Your task to perform on an android device: turn notification dots off Image 0: 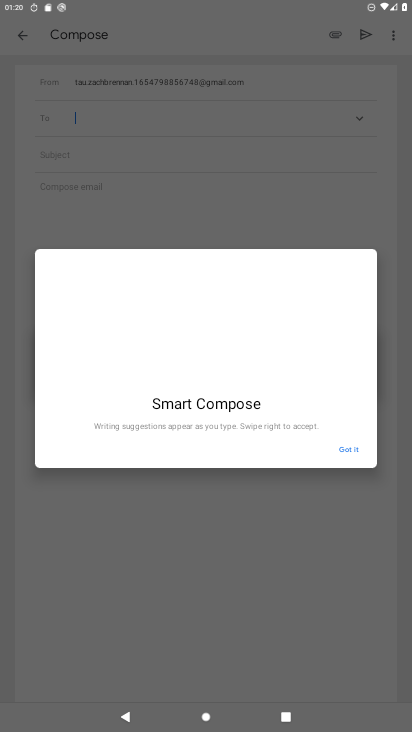
Step 0: click (344, 443)
Your task to perform on an android device: turn notification dots off Image 1: 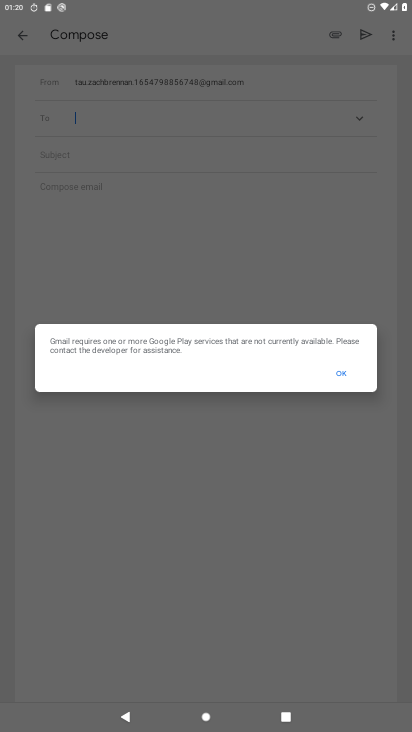
Step 1: press home button
Your task to perform on an android device: turn notification dots off Image 2: 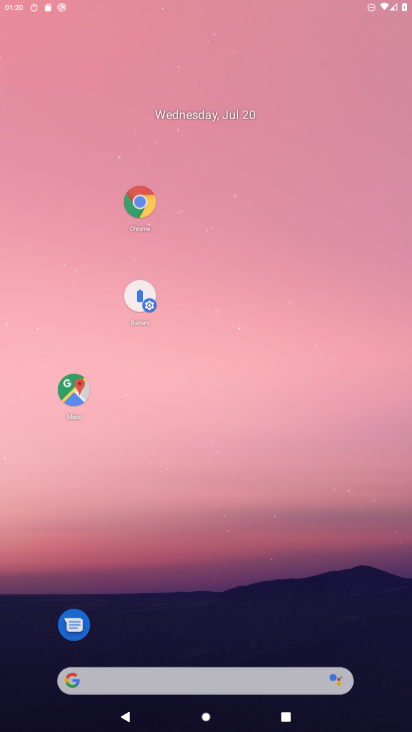
Step 2: drag from (253, 590) to (390, 119)
Your task to perform on an android device: turn notification dots off Image 3: 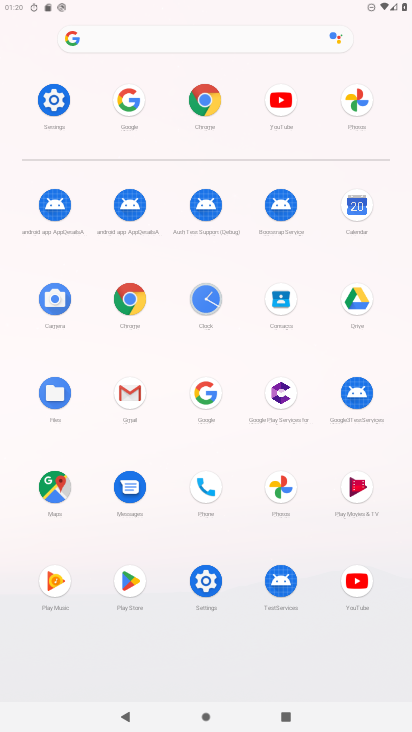
Step 3: click (202, 582)
Your task to perform on an android device: turn notification dots off Image 4: 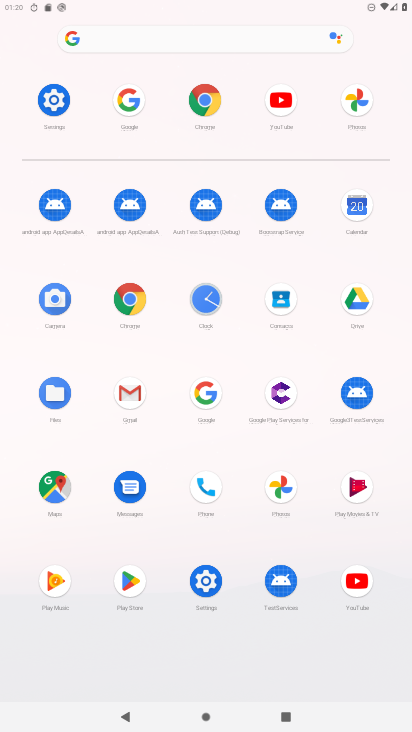
Step 4: click (202, 582)
Your task to perform on an android device: turn notification dots off Image 5: 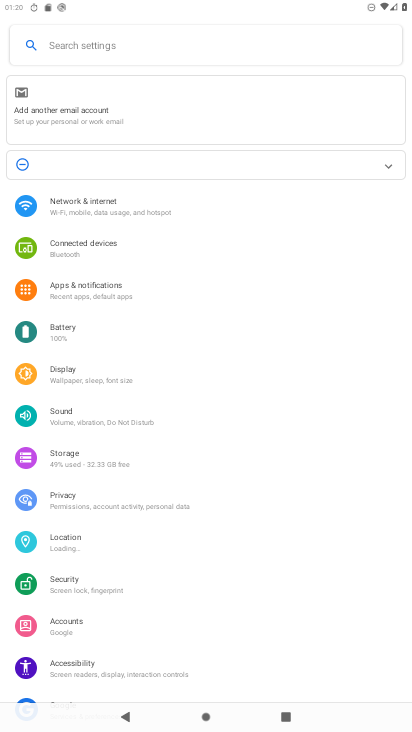
Step 5: click (82, 298)
Your task to perform on an android device: turn notification dots off Image 6: 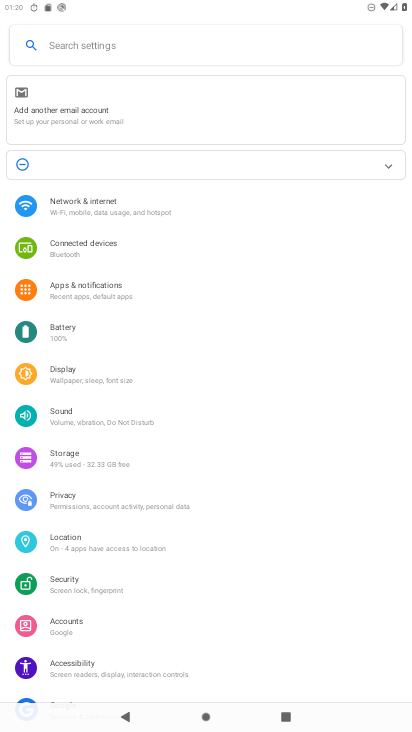
Step 6: click (81, 297)
Your task to perform on an android device: turn notification dots off Image 7: 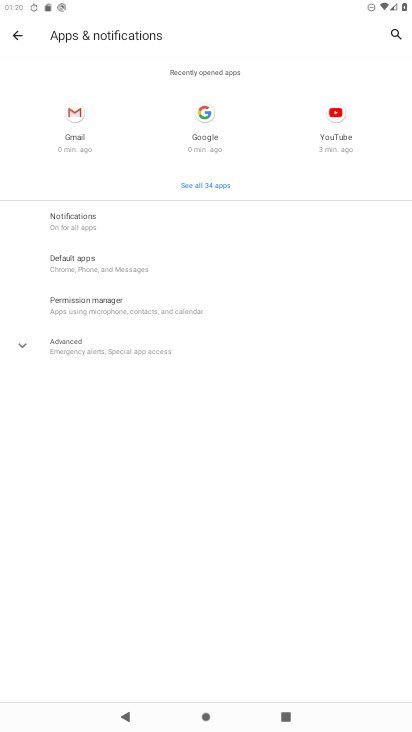
Step 7: click (94, 218)
Your task to perform on an android device: turn notification dots off Image 8: 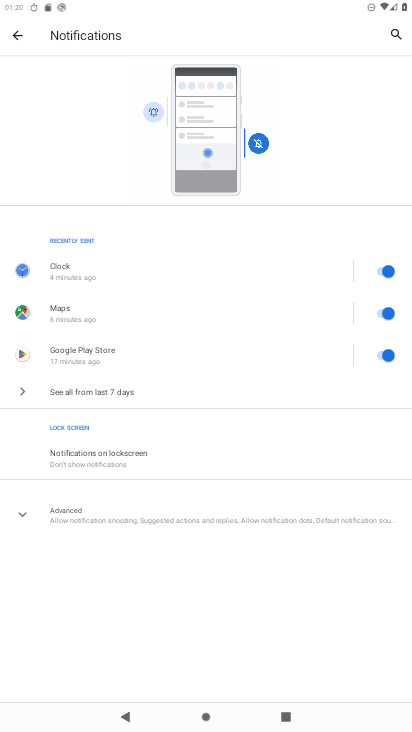
Step 8: click (72, 520)
Your task to perform on an android device: turn notification dots off Image 9: 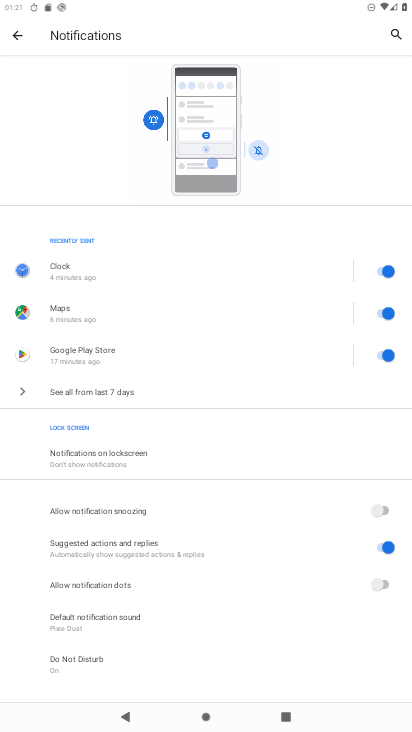
Step 9: task complete